Your task to perform on an android device: toggle sleep mode Image 0: 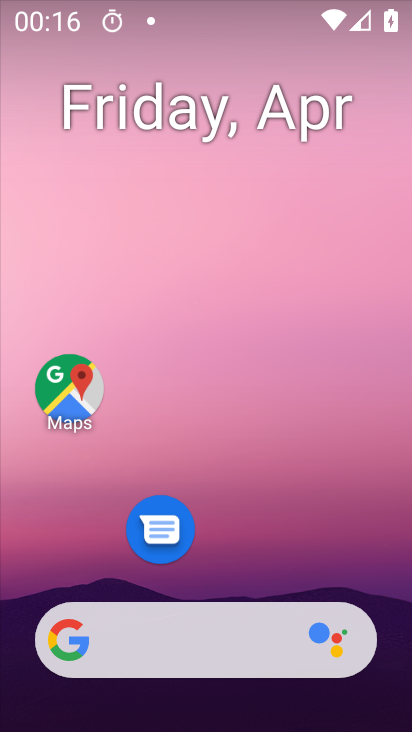
Step 0: drag from (249, 568) to (262, 257)
Your task to perform on an android device: toggle sleep mode Image 1: 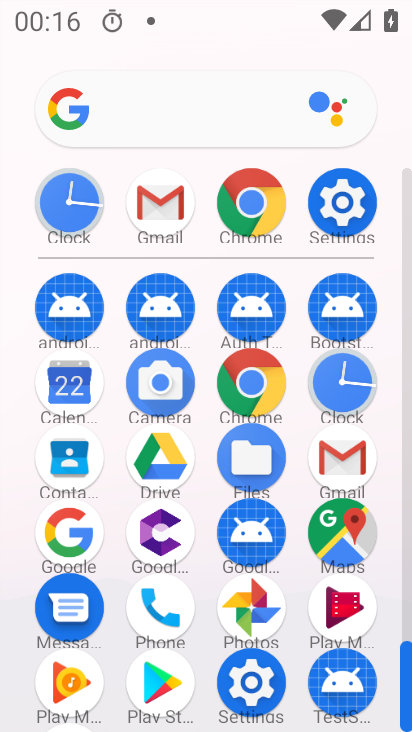
Step 1: click (350, 200)
Your task to perform on an android device: toggle sleep mode Image 2: 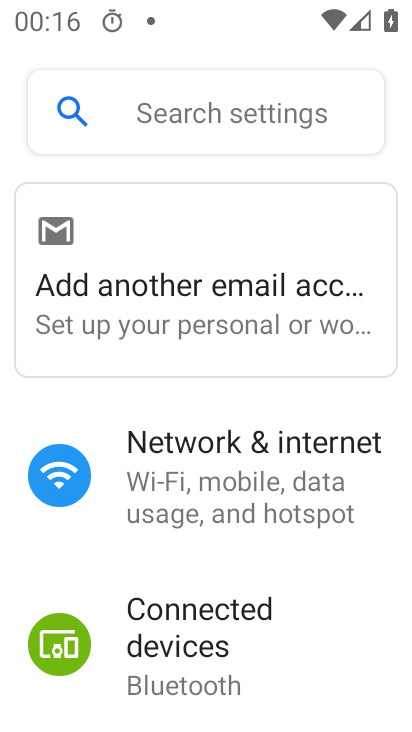
Step 2: click (176, 128)
Your task to perform on an android device: toggle sleep mode Image 3: 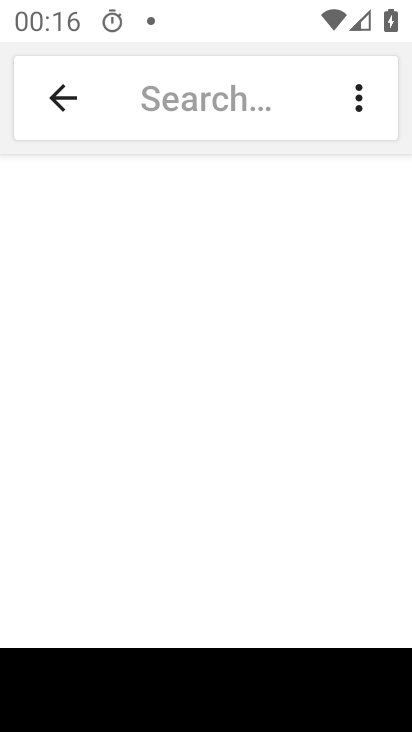
Step 3: type "sleep mode"
Your task to perform on an android device: toggle sleep mode Image 4: 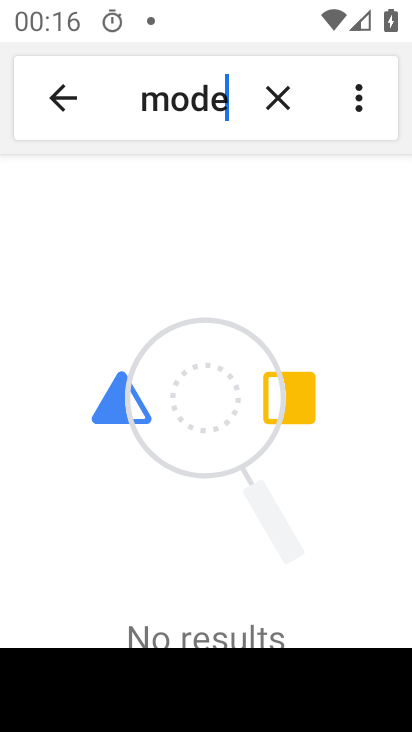
Step 4: task complete